Your task to perform on an android device: turn off notifications in google photos Image 0: 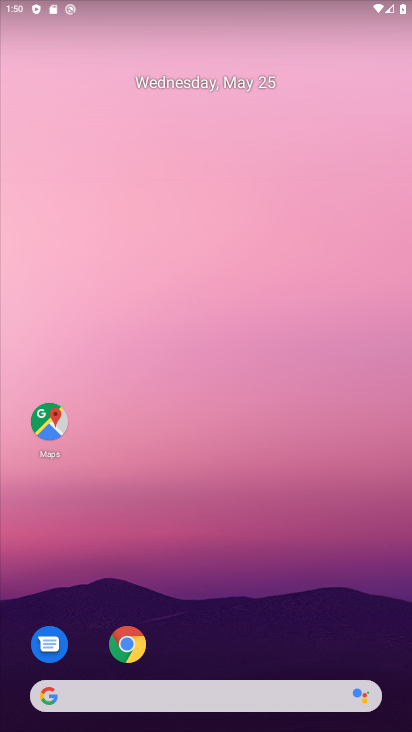
Step 0: drag from (297, 638) to (205, 61)
Your task to perform on an android device: turn off notifications in google photos Image 1: 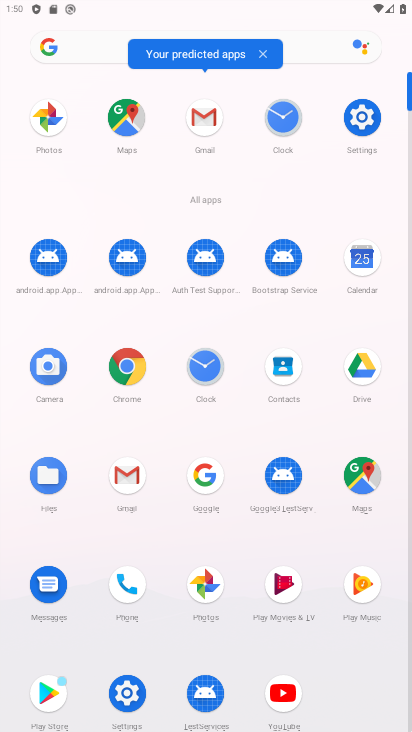
Step 1: click (32, 128)
Your task to perform on an android device: turn off notifications in google photos Image 2: 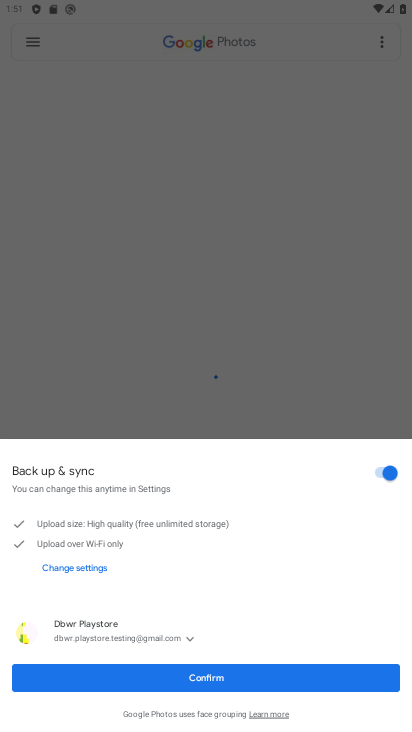
Step 2: click (258, 672)
Your task to perform on an android device: turn off notifications in google photos Image 3: 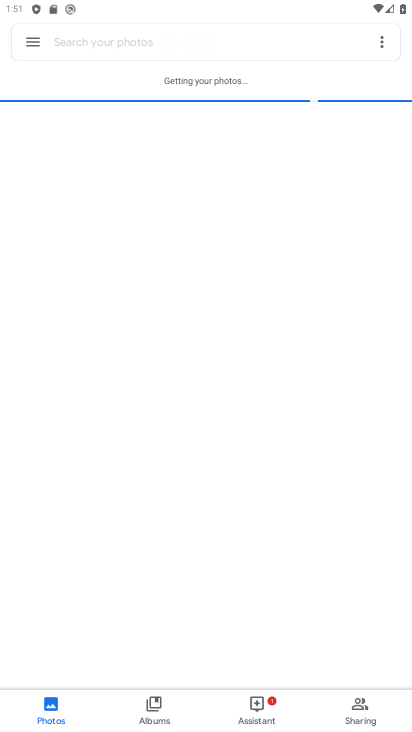
Step 3: click (34, 49)
Your task to perform on an android device: turn off notifications in google photos Image 4: 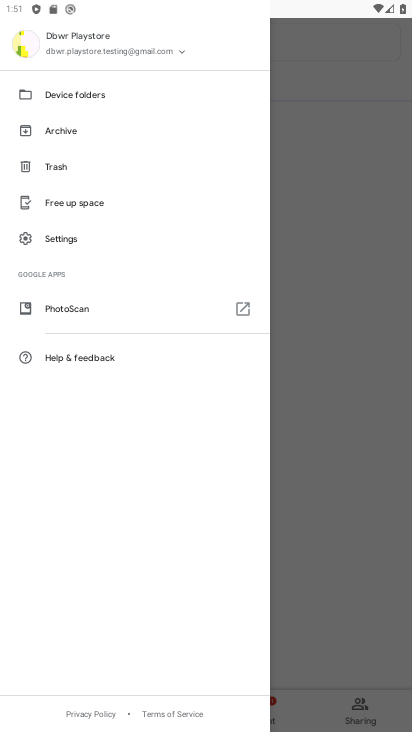
Step 4: click (53, 237)
Your task to perform on an android device: turn off notifications in google photos Image 5: 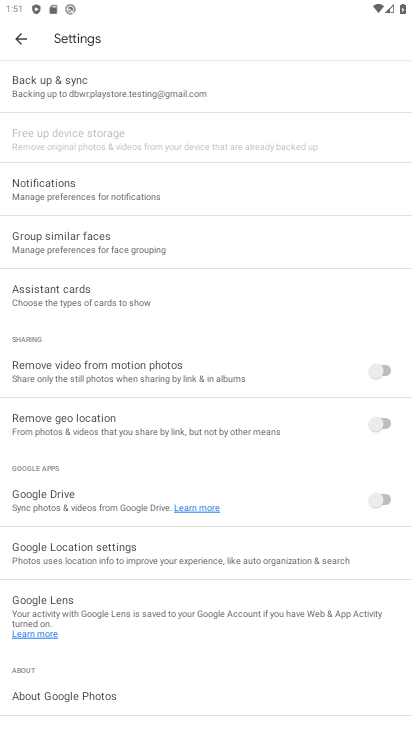
Step 5: click (95, 175)
Your task to perform on an android device: turn off notifications in google photos Image 6: 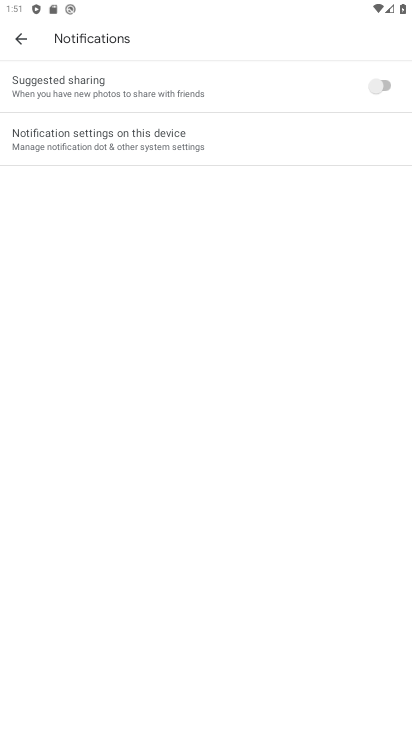
Step 6: click (273, 174)
Your task to perform on an android device: turn off notifications in google photos Image 7: 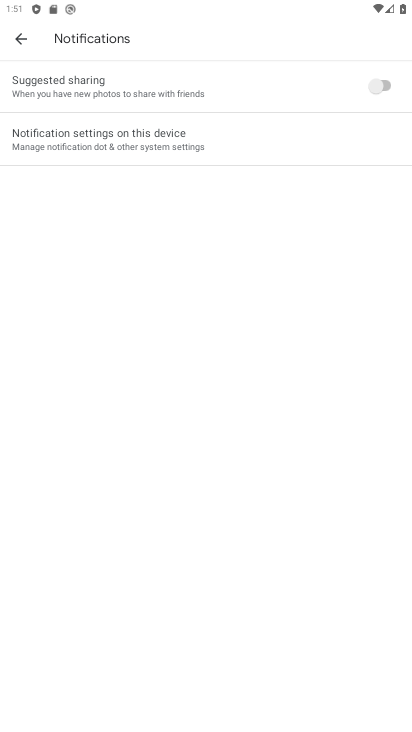
Step 7: click (264, 149)
Your task to perform on an android device: turn off notifications in google photos Image 8: 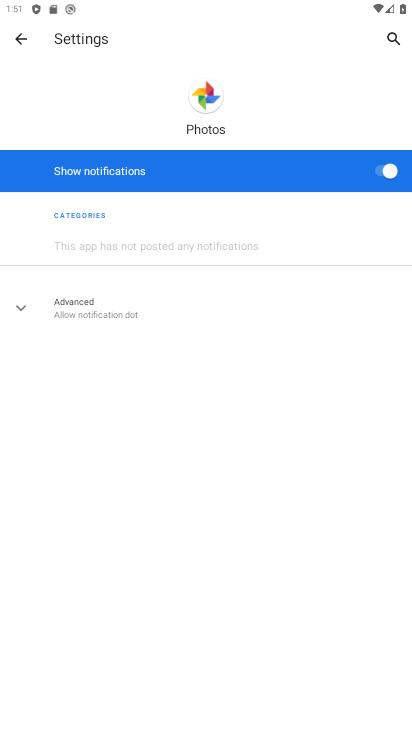
Step 8: click (378, 174)
Your task to perform on an android device: turn off notifications in google photos Image 9: 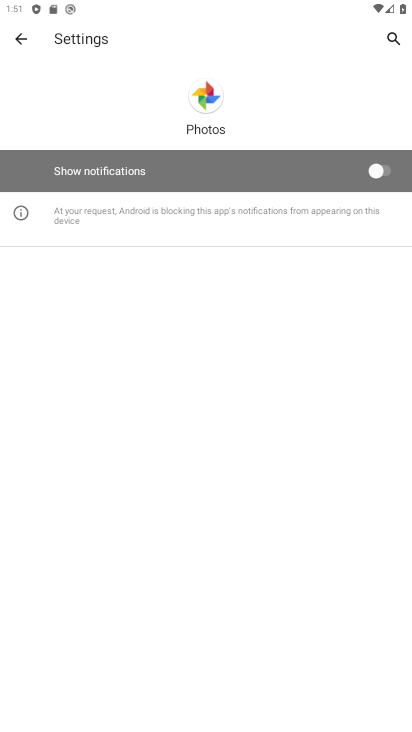
Step 9: task complete